Your task to perform on an android device: Go to calendar. Show me events next week Image 0: 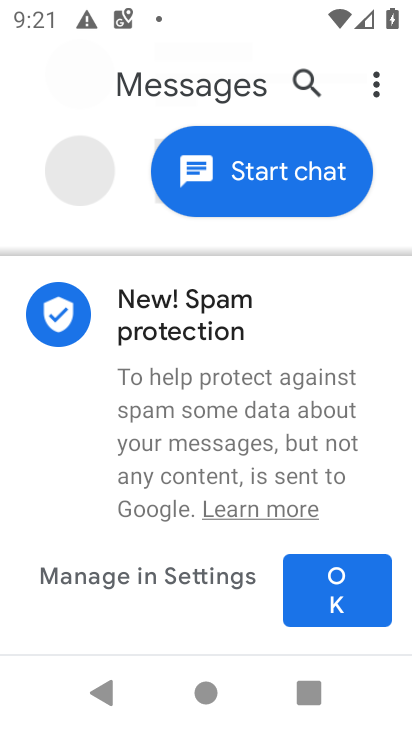
Step 0: task complete